Your task to perform on an android device: turn off location Image 0: 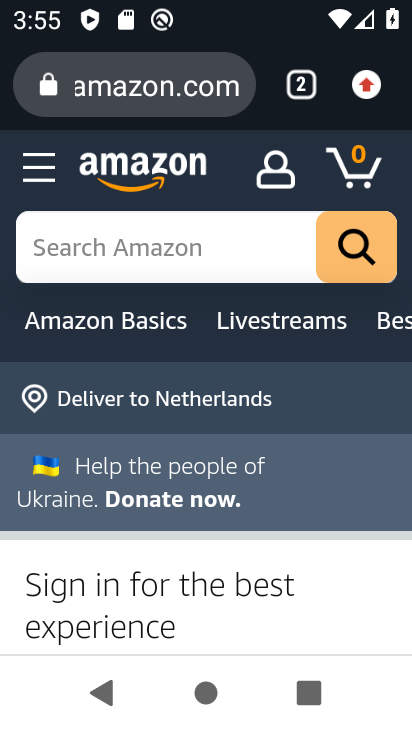
Step 0: press home button
Your task to perform on an android device: turn off location Image 1: 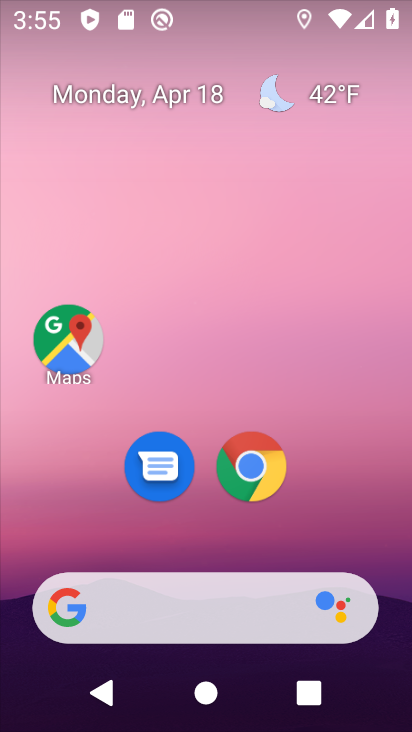
Step 1: drag from (382, 548) to (362, 44)
Your task to perform on an android device: turn off location Image 2: 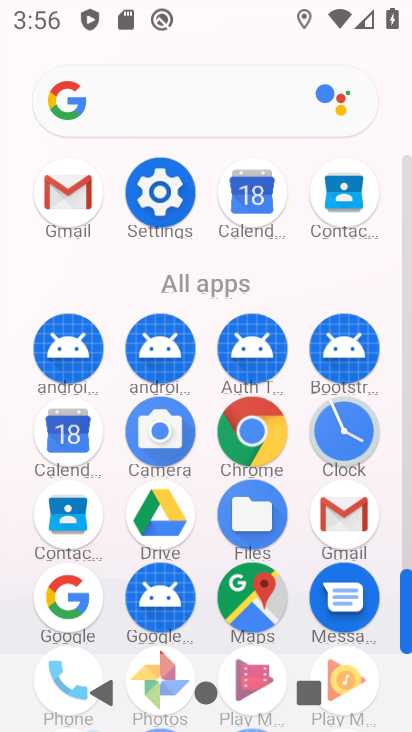
Step 2: drag from (407, 547) to (398, 459)
Your task to perform on an android device: turn off location Image 3: 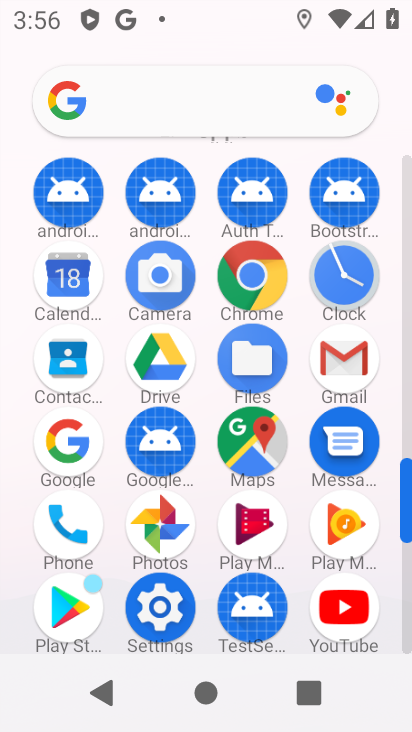
Step 3: click (161, 607)
Your task to perform on an android device: turn off location Image 4: 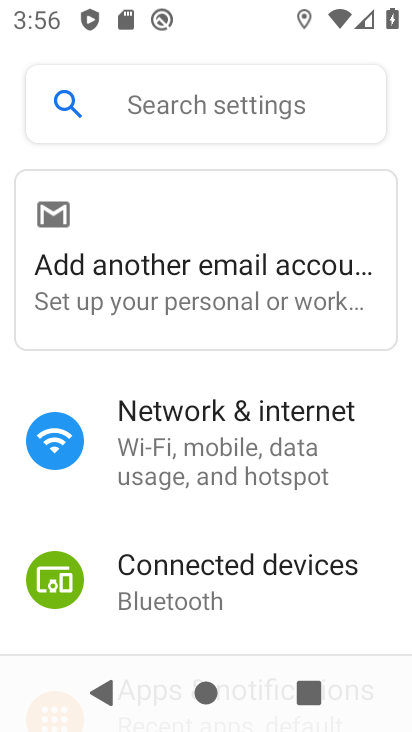
Step 4: drag from (383, 616) to (367, 118)
Your task to perform on an android device: turn off location Image 5: 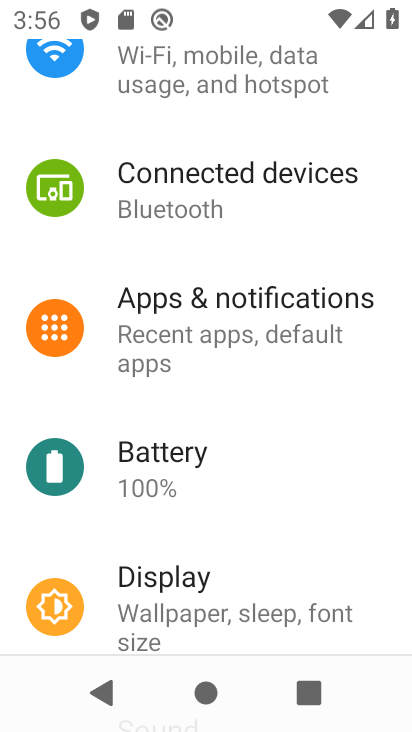
Step 5: drag from (380, 614) to (365, 176)
Your task to perform on an android device: turn off location Image 6: 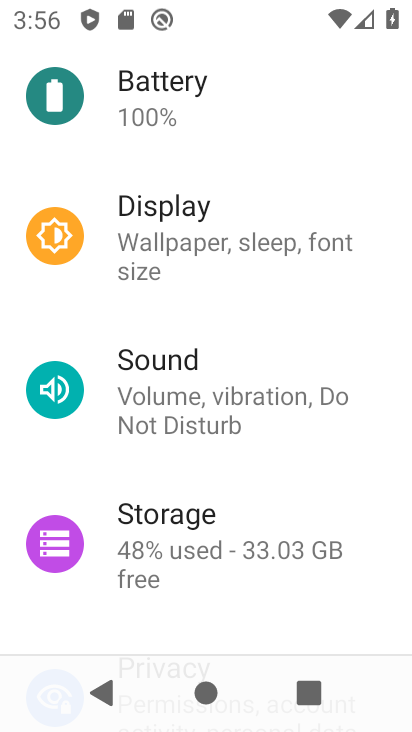
Step 6: drag from (310, 418) to (301, 134)
Your task to perform on an android device: turn off location Image 7: 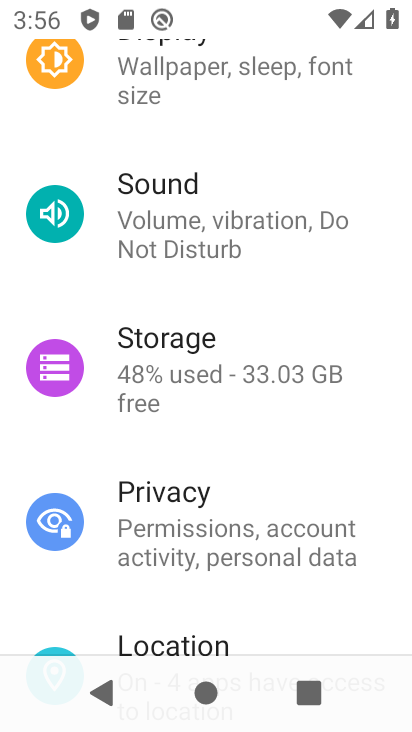
Step 7: drag from (252, 527) to (306, 158)
Your task to perform on an android device: turn off location Image 8: 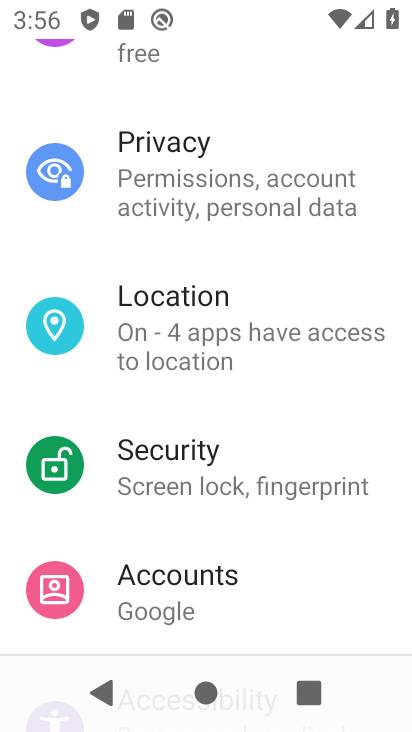
Step 8: click (197, 337)
Your task to perform on an android device: turn off location Image 9: 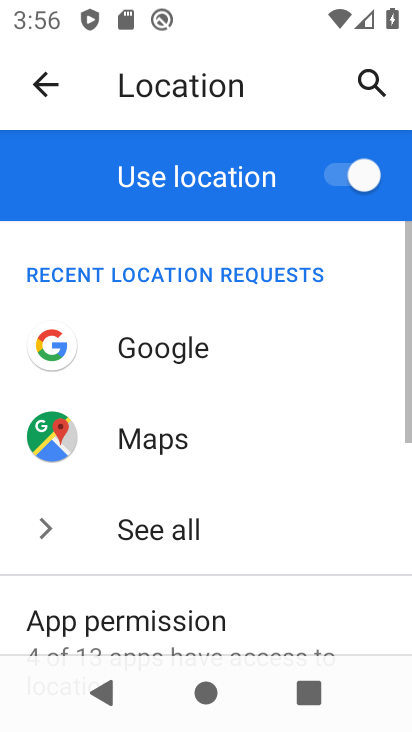
Step 9: click (332, 178)
Your task to perform on an android device: turn off location Image 10: 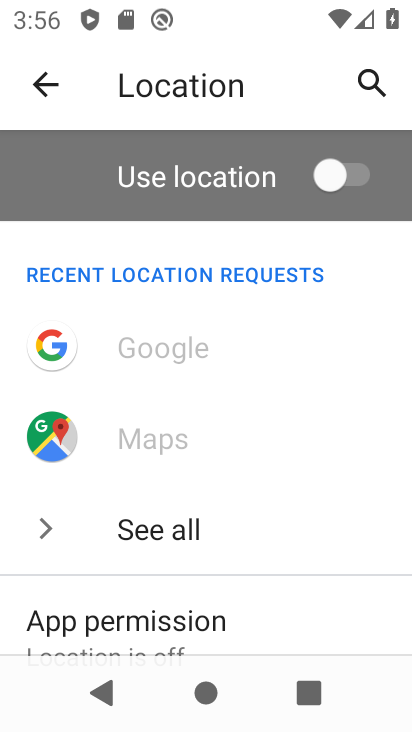
Step 10: task complete